Your task to perform on an android device: turn off notifications in google photos Image 0: 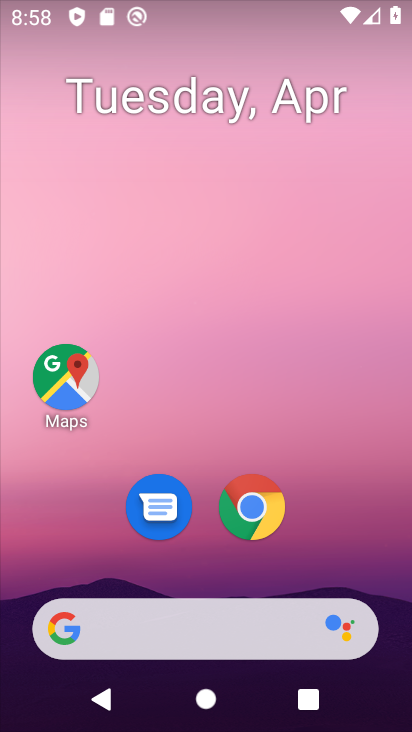
Step 0: drag from (322, 524) to (345, 189)
Your task to perform on an android device: turn off notifications in google photos Image 1: 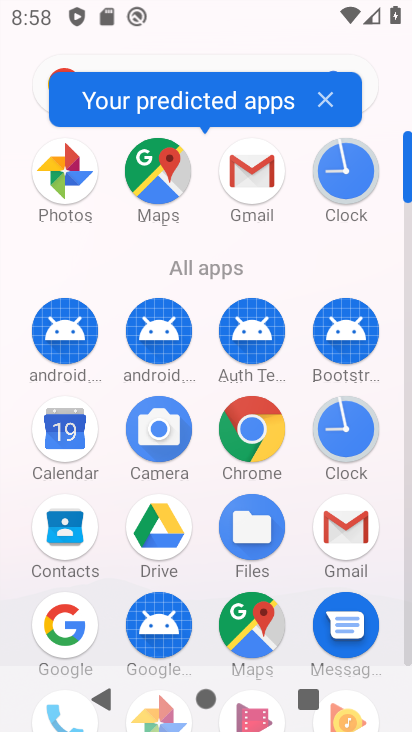
Step 1: drag from (295, 550) to (318, 232)
Your task to perform on an android device: turn off notifications in google photos Image 2: 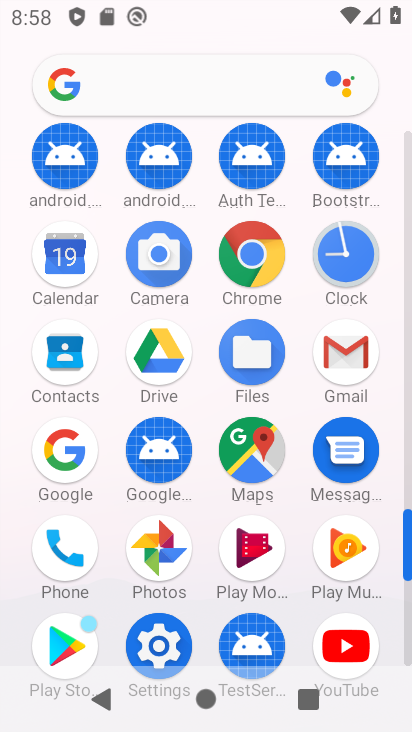
Step 2: click (154, 547)
Your task to perform on an android device: turn off notifications in google photos Image 3: 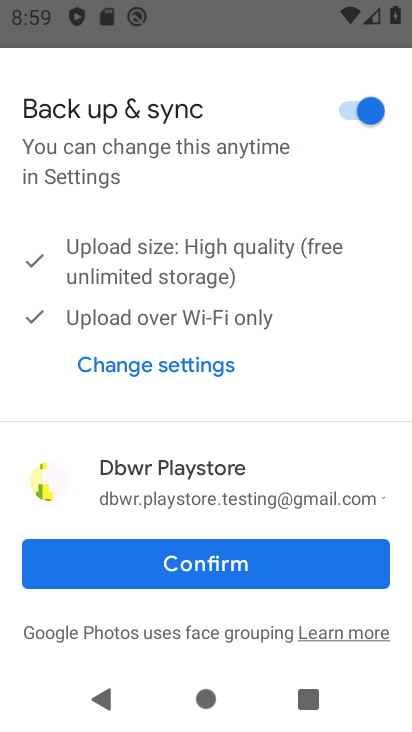
Step 3: click (176, 552)
Your task to perform on an android device: turn off notifications in google photos Image 4: 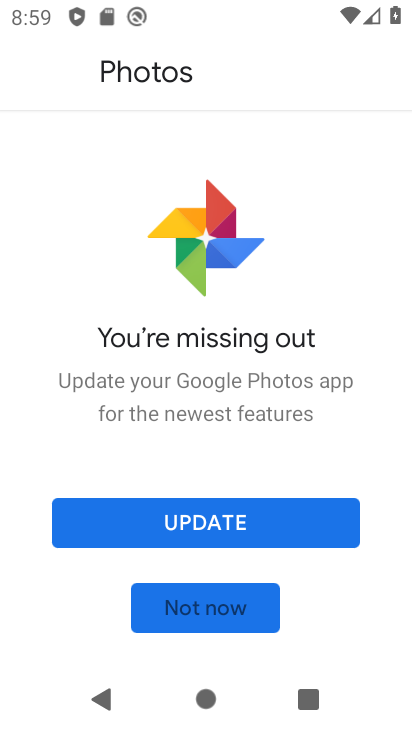
Step 4: click (61, 79)
Your task to perform on an android device: turn off notifications in google photos Image 5: 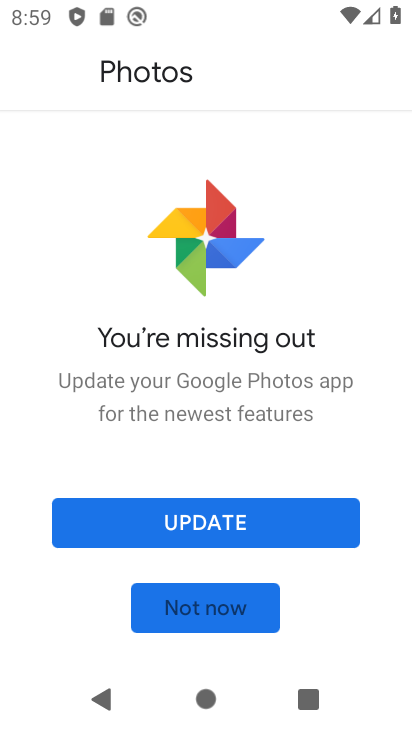
Step 5: click (206, 606)
Your task to perform on an android device: turn off notifications in google photos Image 6: 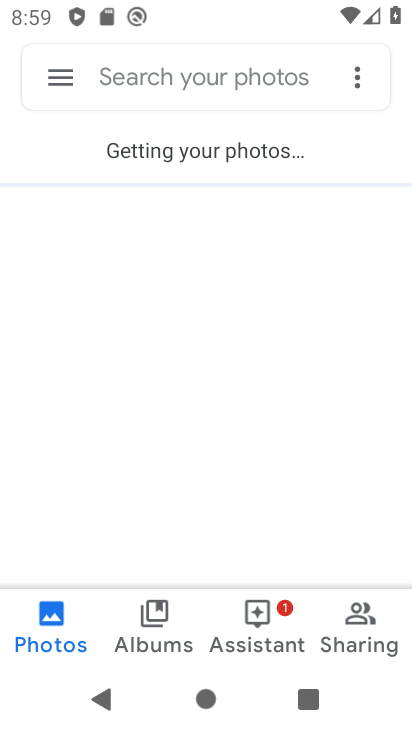
Step 6: click (72, 78)
Your task to perform on an android device: turn off notifications in google photos Image 7: 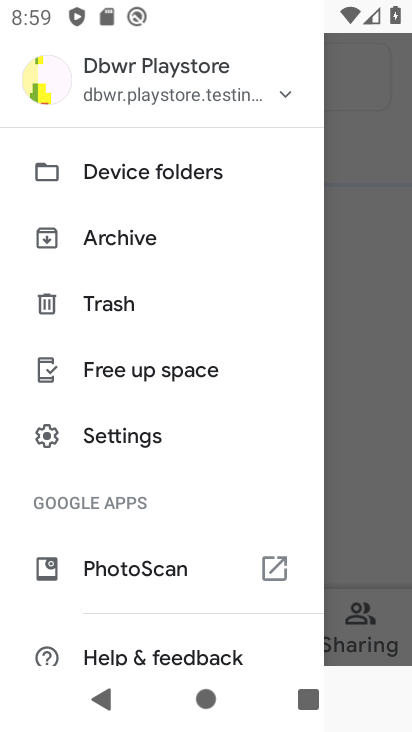
Step 7: drag from (159, 587) to (195, 475)
Your task to perform on an android device: turn off notifications in google photos Image 8: 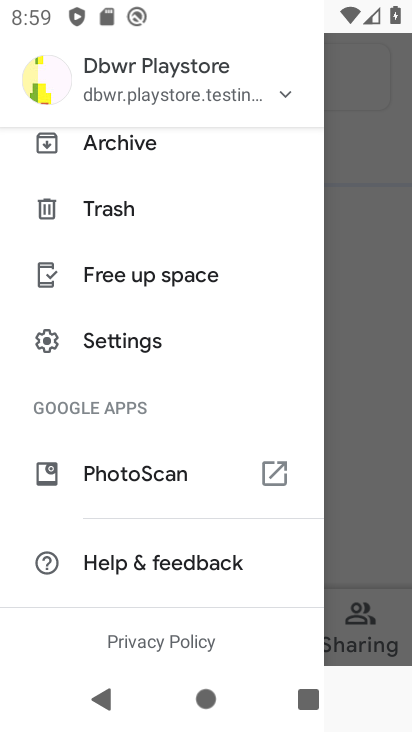
Step 8: click (127, 349)
Your task to perform on an android device: turn off notifications in google photos Image 9: 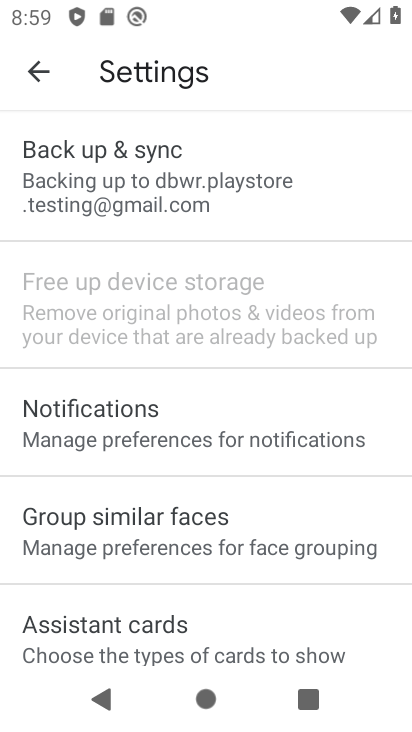
Step 9: click (203, 428)
Your task to perform on an android device: turn off notifications in google photos Image 10: 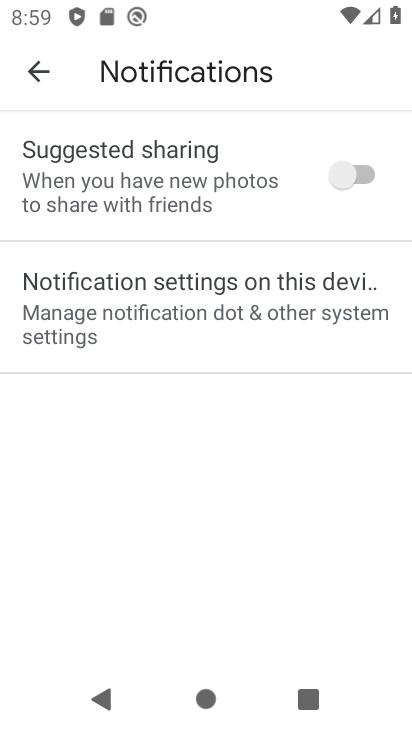
Step 10: click (319, 283)
Your task to perform on an android device: turn off notifications in google photos Image 11: 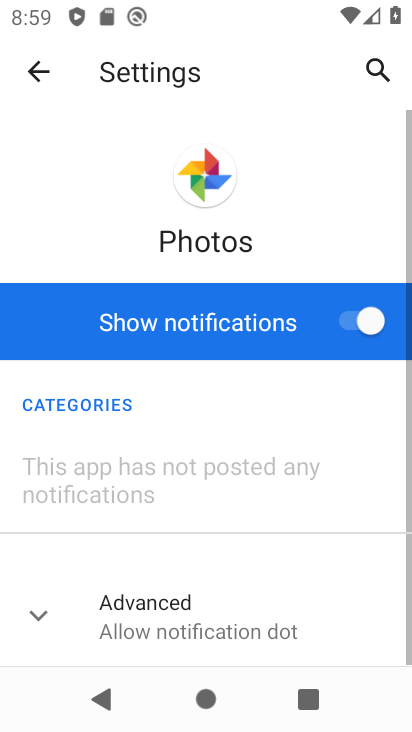
Step 11: click (362, 320)
Your task to perform on an android device: turn off notifications in google photos Image 12: 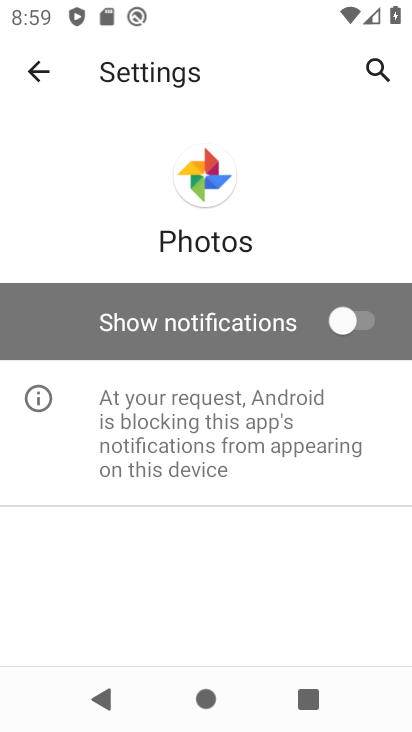
Step 12: task complete